Your task to perform on an android device: Go to Reddit.com Image 0: 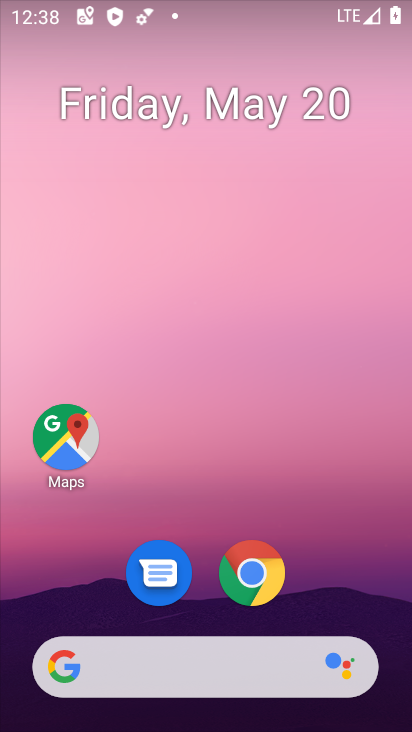
Step 0: click (246, 571)
Your task to perform on an android device: Go to Reddit.com Image 1: 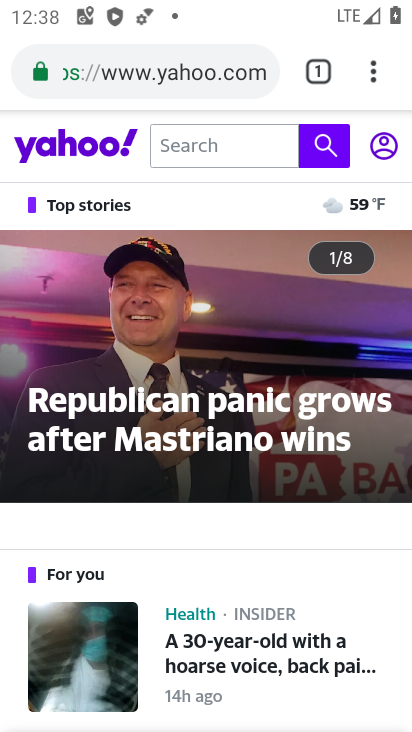
Step 1: click (205, 83)
Your task to perform on an android device: Go to Reddit.com Image 2: 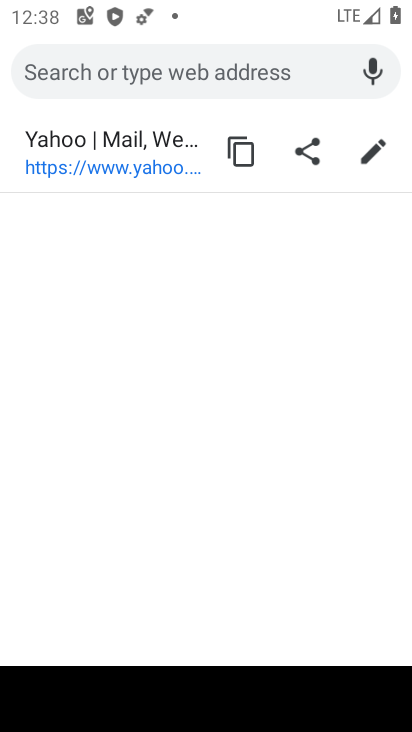
Step 2: type "Reddit.com"
Your task to perform on an android device: Go to Reddit.com Image 3: 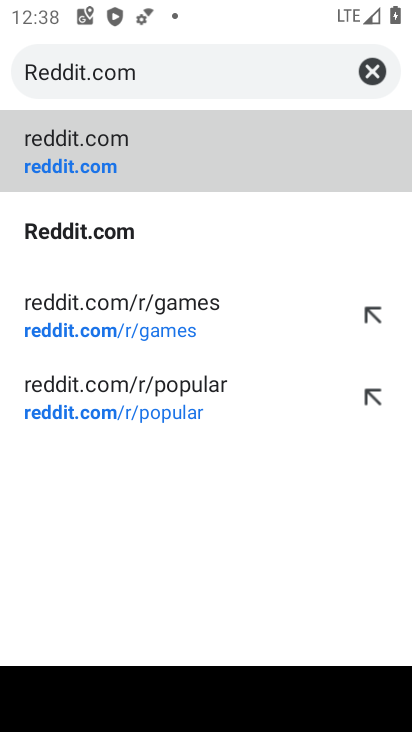
Step 3: click (108, 179)
Your task to perform on an android device: Go to Reddit.com Image 4: 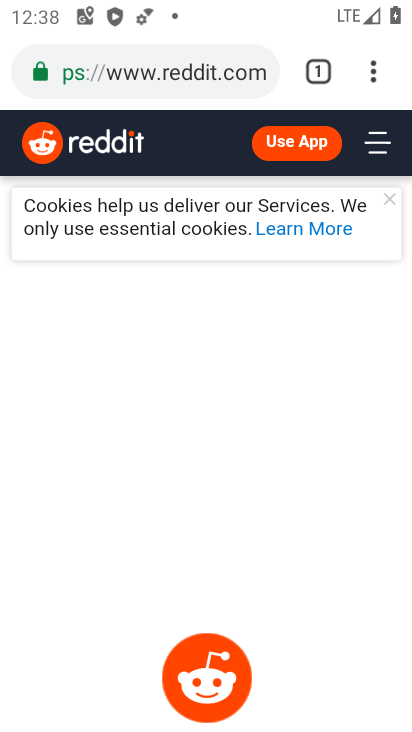
Step 4: task complete